Your task to perform on an android device: Open calendar and show me the third week of next month Image 0: 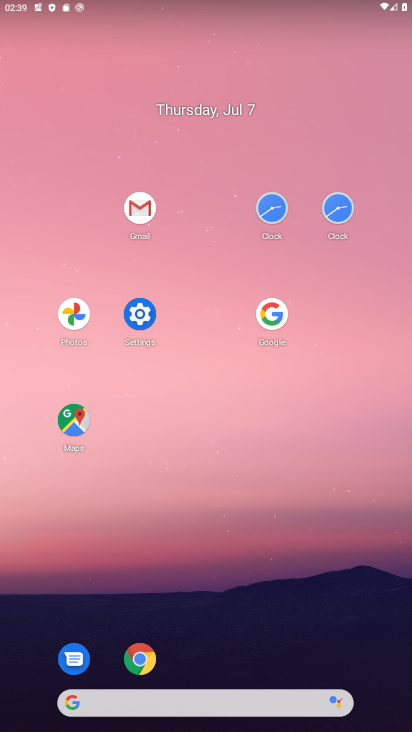
Step 0: drag from (222, 499) to (280, 88)
Your task to perform on an android device: Open calendar and show me the third week of next month Image 1: 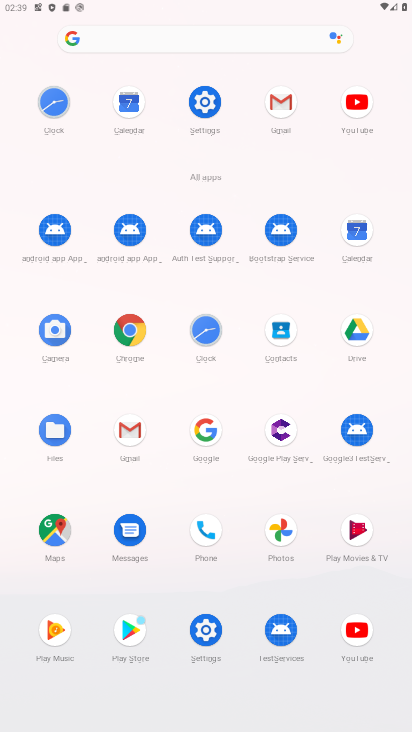
Step 1: drag from (354, 228) to (134, 410)
Your task to perform on an android device: Open calendar and show me the third week of next month Image 2: 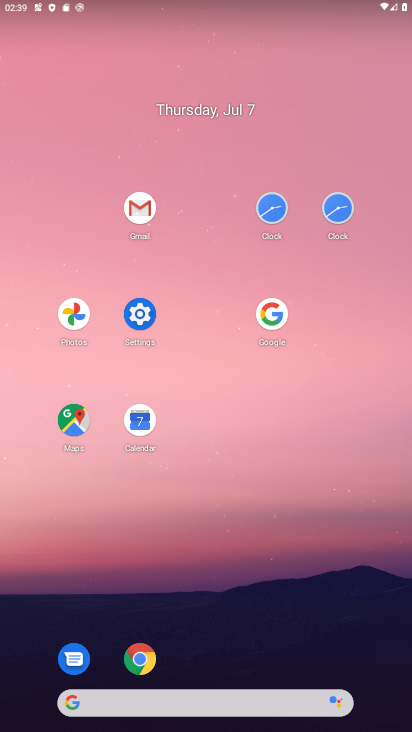
Step 2: click (150, 420)
Your task to perform on an android device: Open calendar and show me the third week of next month Image 3: 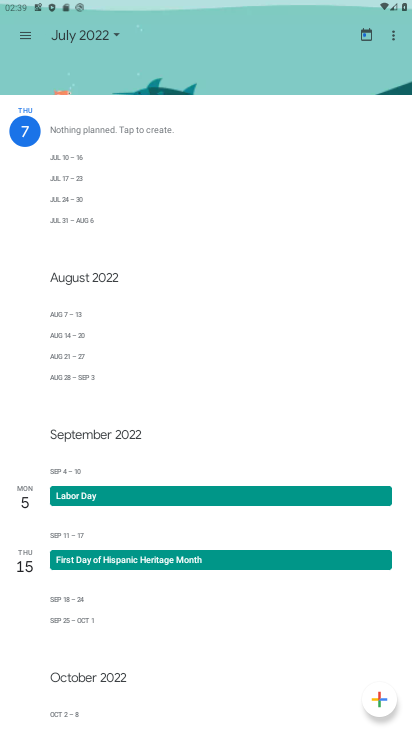
Step 3: click (80, 33)
Your task to perform on an android device: Open calendar and show me the third week of next month Image 4: 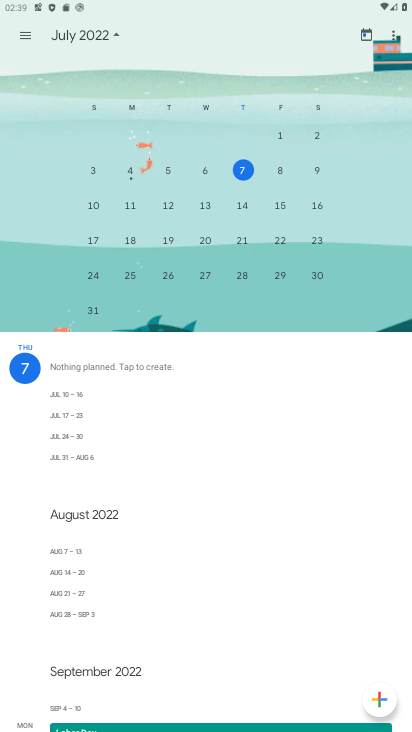
Step 4: drag from (319, 211) to (31, 274)
Your task to perform on an android device: Open calendar and show me the third week of next month Image 5: 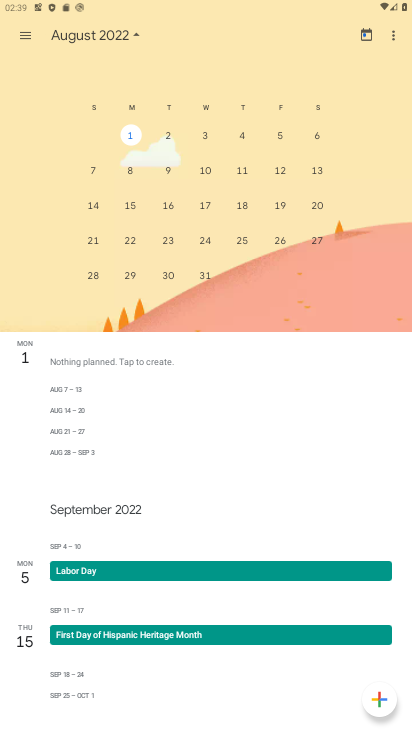
Step 5: click (24, 42)
Your task to perform on an android device: Open calendar and show me the third week of next month Image 6: 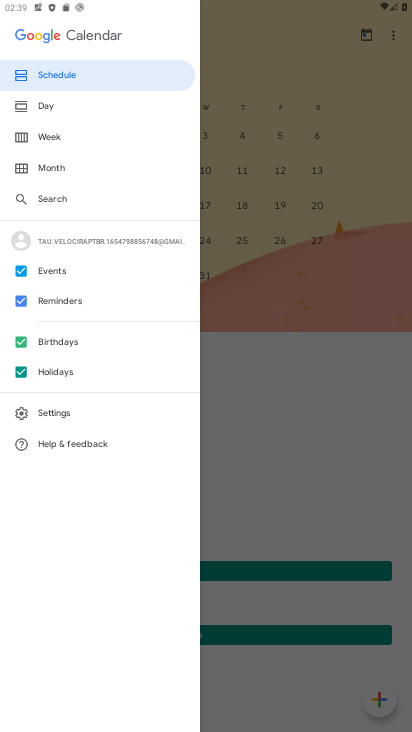
Step 6: click (62, 139)
Your task to perform on an android device: Open calendar and show me the third week of next month Image 7: 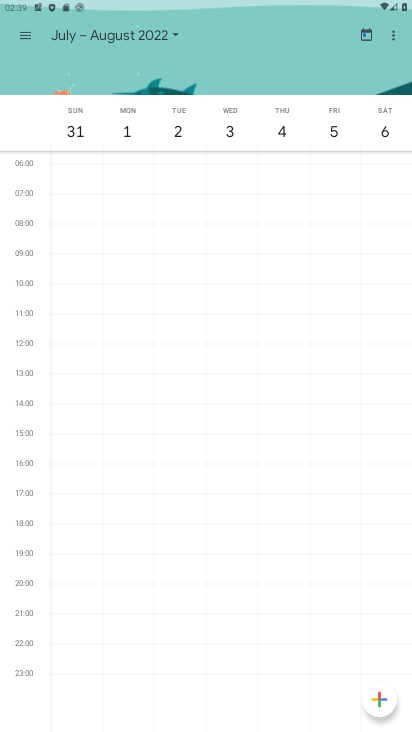
Step 7: task complete